Your task to perform on an android device: turn off notifications settings in the gmail app Image 0: 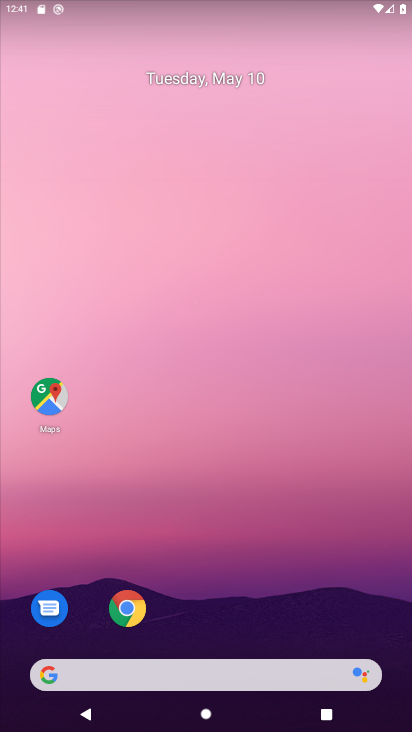
Step 0: drag from (328, 587) to (323, 172)
Your task to perform on an android device: turn off notifications settings in the gmail app Image 1: 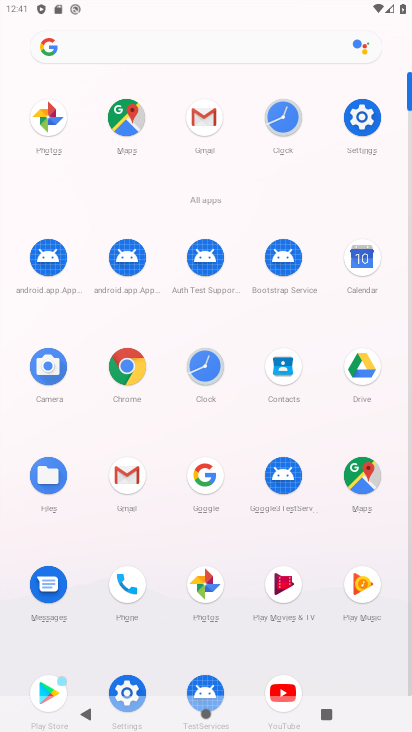
Step 1: click (132, 475)
Your task to perform on an android device: turn off notifications settings in the gmail app Image 2: 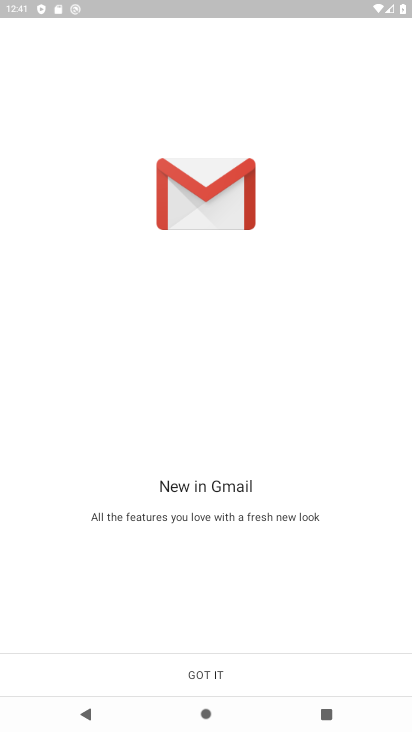
Step 2: click (212, 665)
Your task to perform on an android device: turn off notifications settings in the gmail app Image 3: 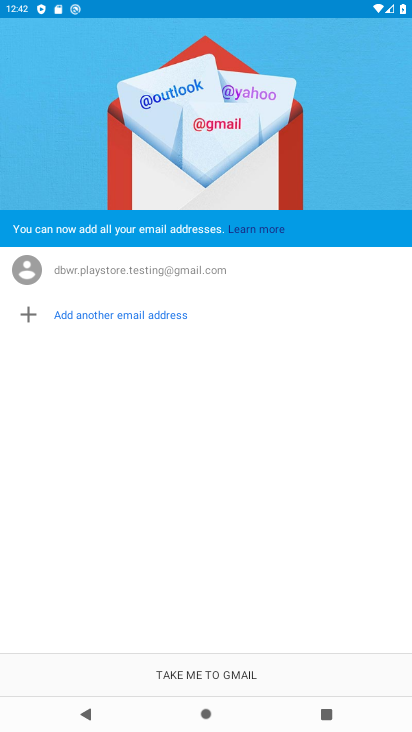
Step 3: click (217, 674)
Your task to perform on an android device: turn off notifications settings in the gmail app Image 4: 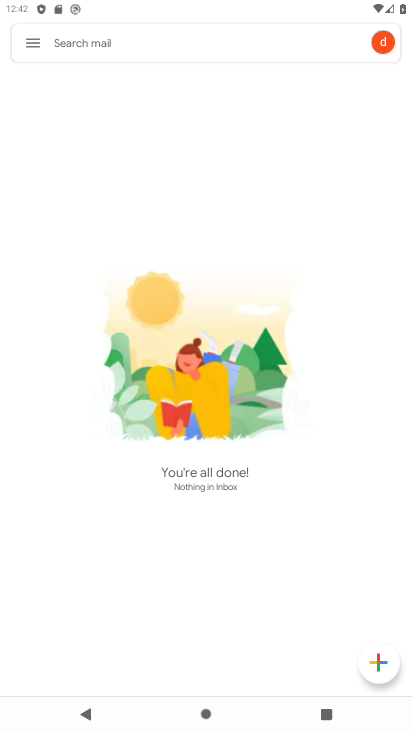
Step 4: click (38, 46)
Your task to perform on an android device: turn off notifications settings in the gmail app Image 5: 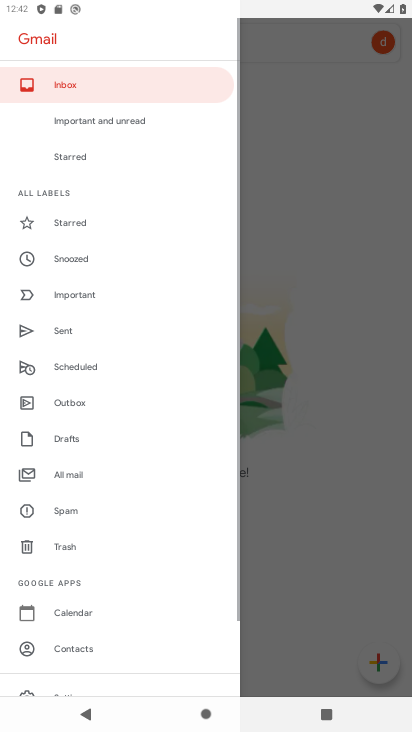
Step 5: drag from (150, 643) to (170, 310)
Your task to perform on an android device: turn off notifications settings in the gmail app Image 6: 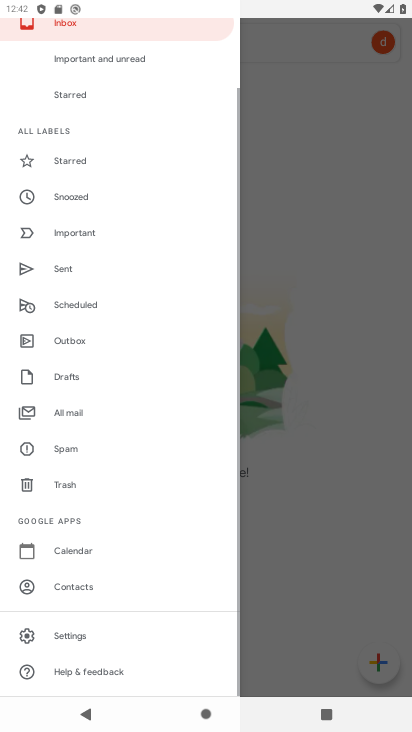
Step 6: click (97, 644)
Your task to perform on an android device: turn off notifications settings in the gmail app Image 7: 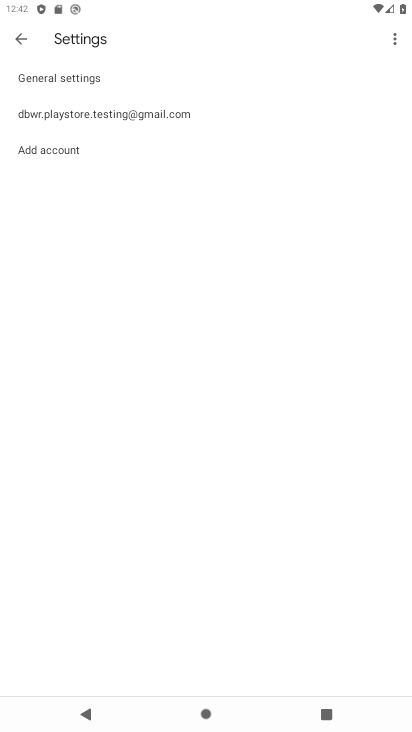
Step 7: click (201, 120)
Your task to perform on an android device: turn off notifications settings in the gmail app Image 8: 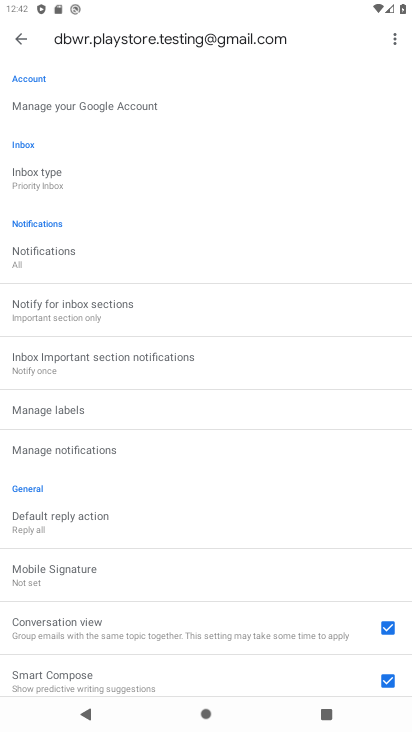
Step 8: click (59, 260)
Your task to perform on an android device: turn off notifications settings in the gmail app Image 9: 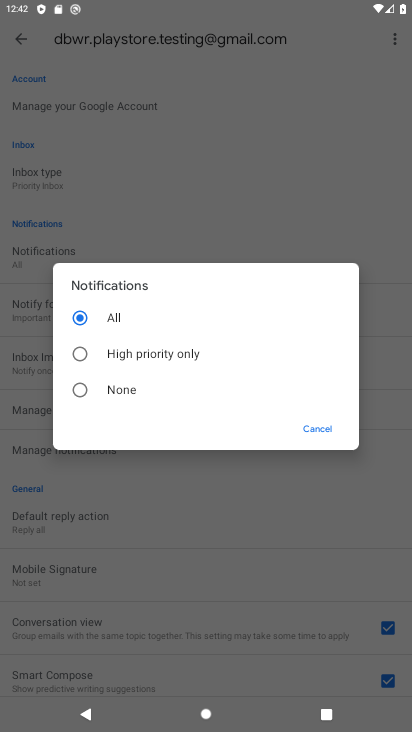
Step 9: click (82, 399)
Your task to perform on an android device: turn off notifications settings in the gmail app Image 10: 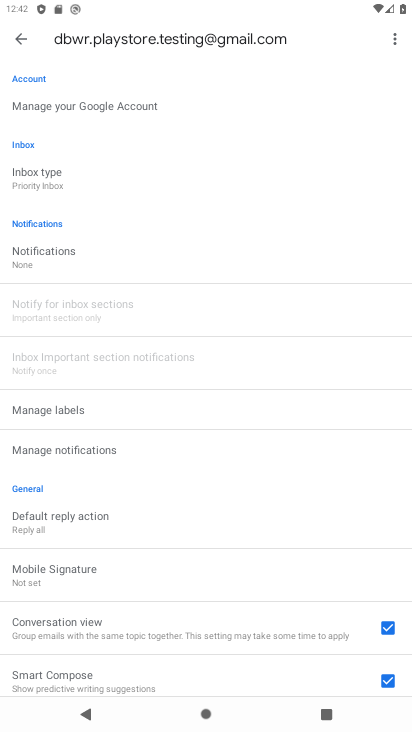
Step 10: task complete